Your task to perform on an android device: find photos in the google photos app Image 0: 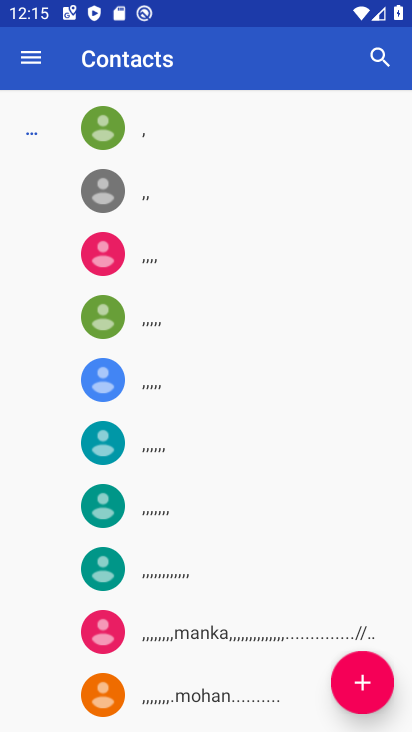
Step 0: press back button
Your task to perform on an android device: find photos in the google photos app Image 1: 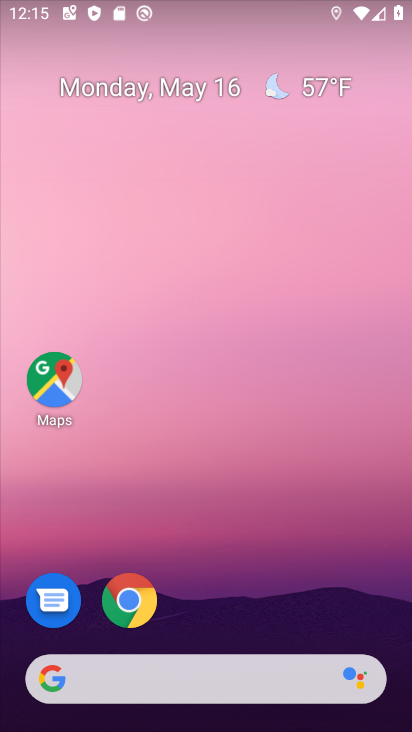
Step 1: drag from (217, 562) to (274, 35)
Your task to perform on an android device: find photos in the google photos app Image 2: 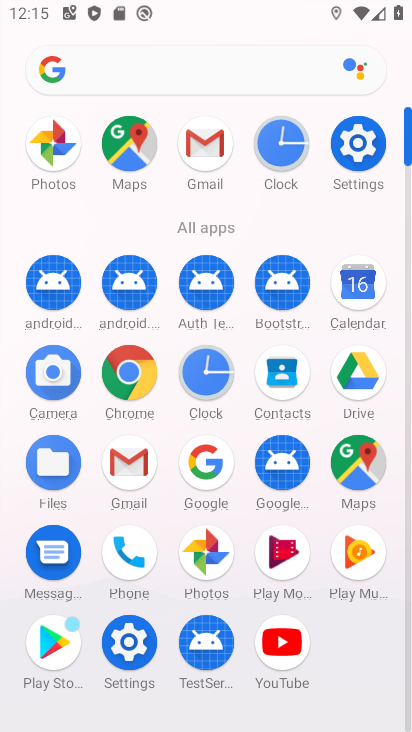
Step 2: click (204, 551)
Your task to perform on an android device: find photos in the google photos app Image 3: 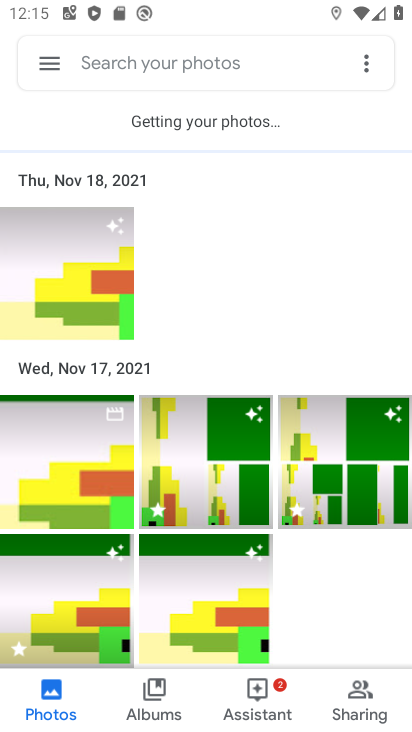
Step 3: click (63, 702)
Your task to perform on an android device: find photos in the google photos app Image 4: 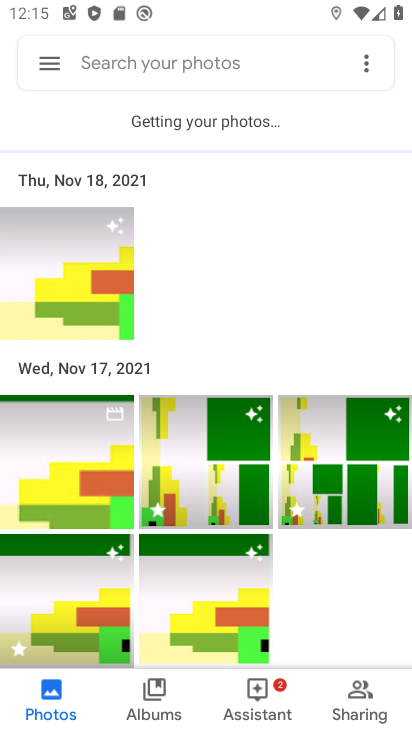
Step 4: task complete